Your task to perform on an android device: Go to display settings Image 0: 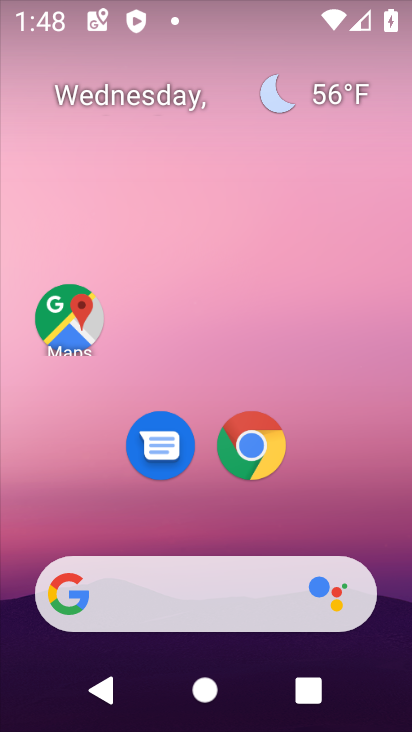
Step 0: drag from (230, 532) to (188, 88)
Your task to perform on an android device: Go to display settings Image 1: 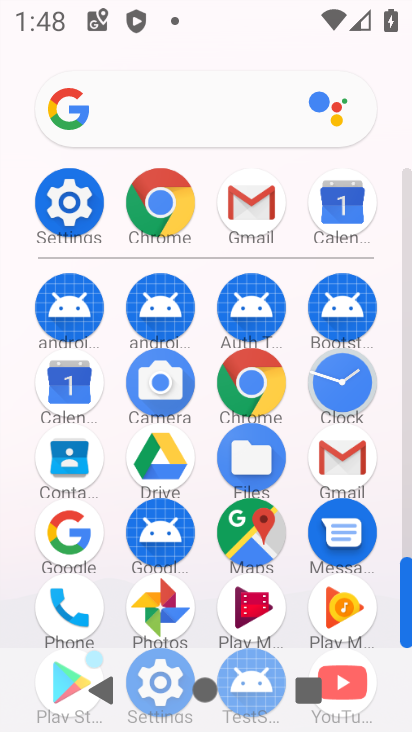
Step 1: click (64, 206)
Your task to perform on an android device: Go to display settings Image 2: 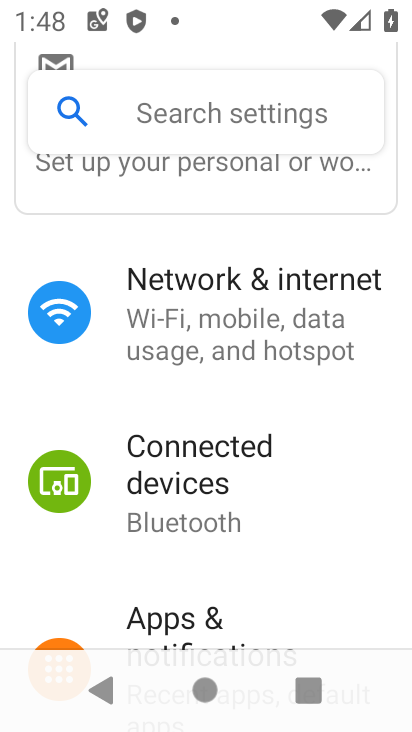
Step 2: drag from (80, 484) to (36, 117)
Your task to perform on an android device: Go to display settings Image 3: 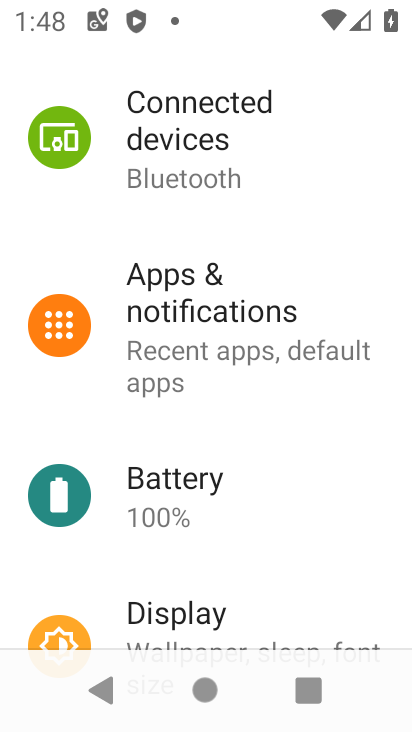
Step 3: click (171, 600)
Your task to perform on an android device: Go to display settings Image 4: 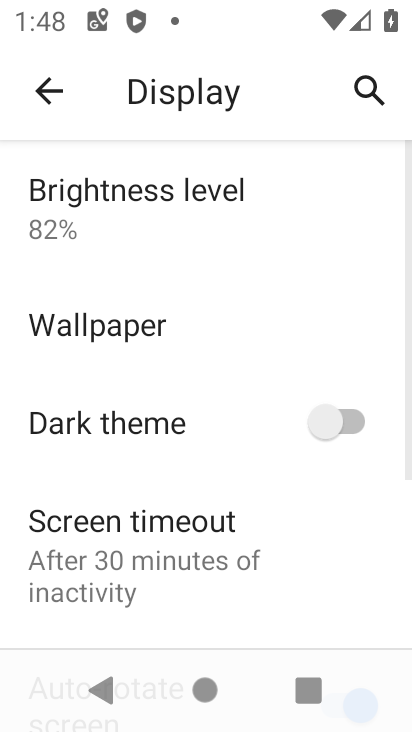
Step 4: task complete